Your task to perform on an android device: open chrome privacy settings Image 0: 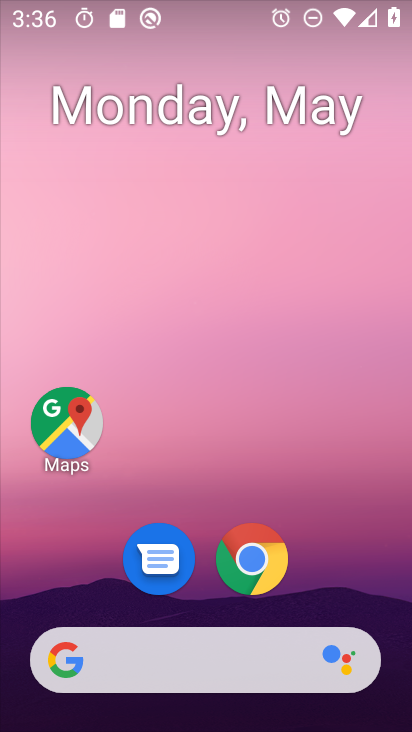
Step 0: drag from (198, 607) to (233, 198)
Your task to perform on an android device: open chrome privacy settings Image 1: 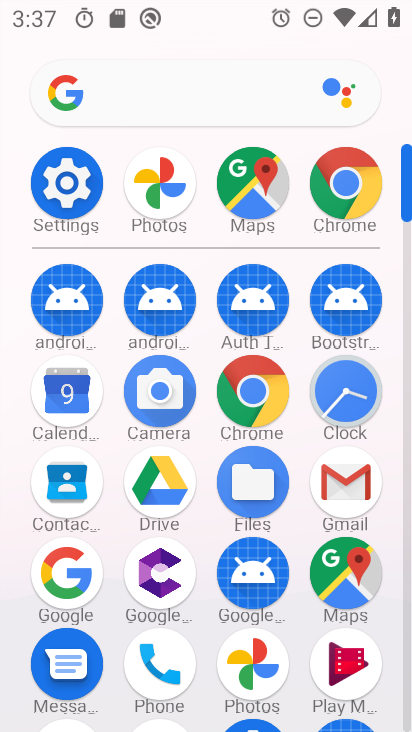
Step 1: click (64, 185)
Your task to perform on an android device: open chrome privacy settings Image 2: 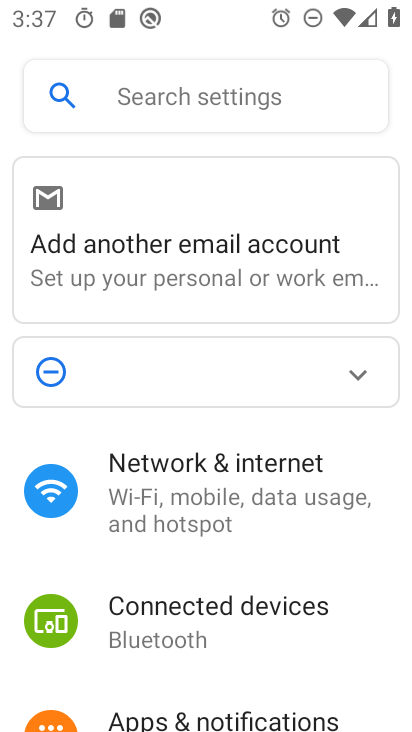
Step 2: drag from (230, 572) to (265, 314)
Your task to perform on an android device: open chrome privacy settings Image 3: 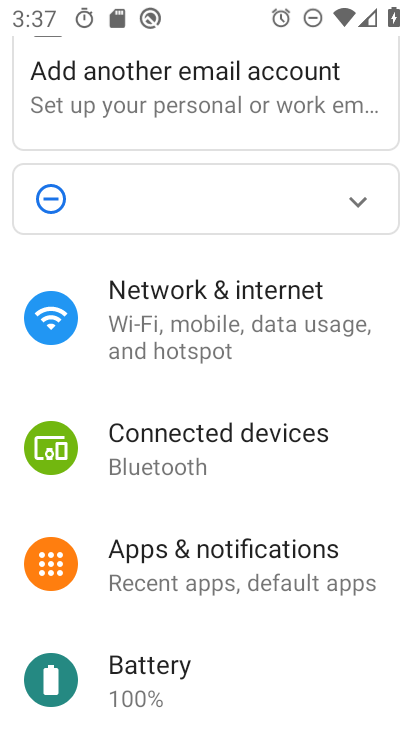
Step 3: drag from (261, 600) to (288, 182)
Your task to perform on an android device: open chrome privacy settings Image 4: 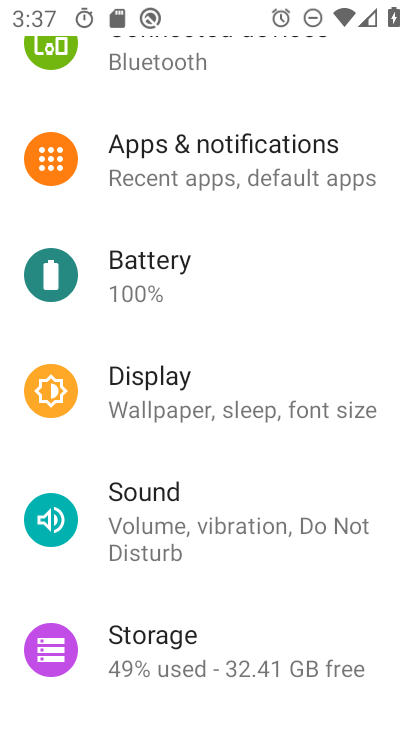
Step 4: drag from (265, 623) to (239, 329)
Your task to perform on an android device: open chrome privacy settings Image 5: 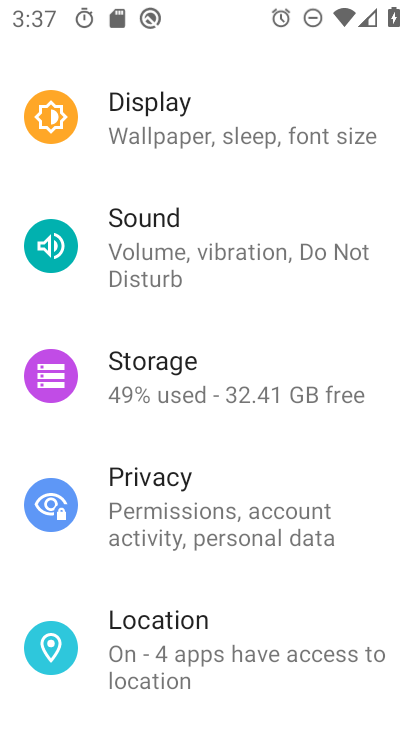
Step 5: drag from (259, 609) to (289, 166)
Your task to perform on an android device: open chrome privacy settings Image 6: 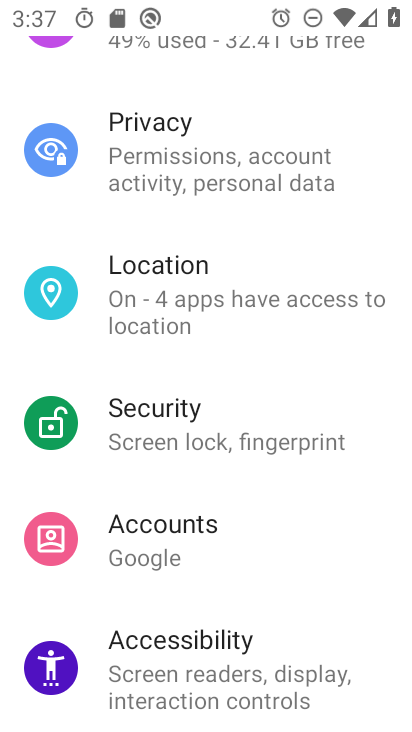
Step 6: drag from (236, 606) to (232, 243)
Your task to perform on an android device: open chrome privacy settings Image 7: 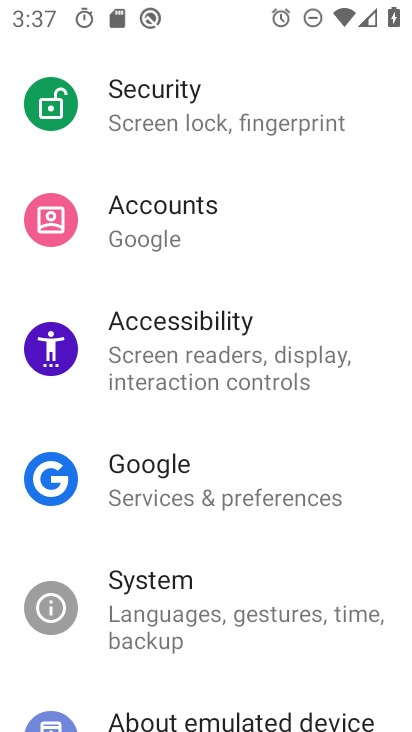
Step 7: drag from (238, 163) to (251, 725)
Your task to perform on an android device: open chrome privacy settings Image 8: 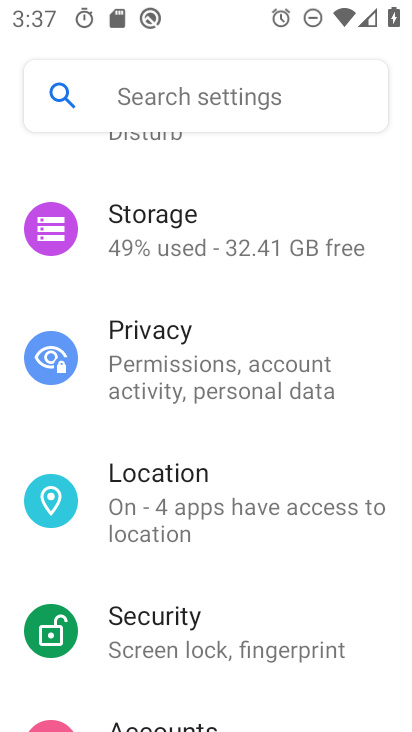
Step 8: click (209, 369)
Your task to perform on an android device: open chrome privacy settings Image 9: 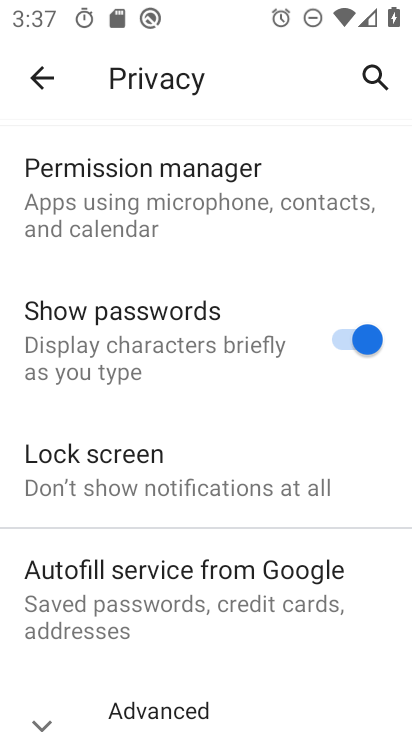
Step 9: task complete